Your task to perform on an android device: toggle translation in the chrome app Image 0: 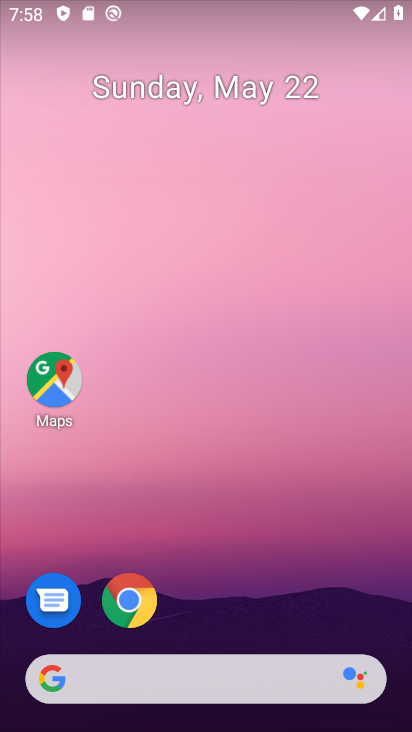
Step 0: drag from (196, 637) to (221, 316)
Your task to perform on an android device: toggle translation in the chrome app Image 1: 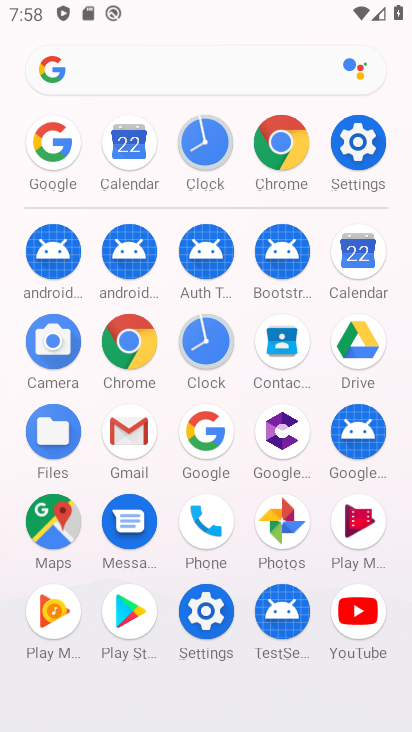
Step 1: click (121, 342)
Your task to perform on an android device: toggle translation in the chrome app Image 2: 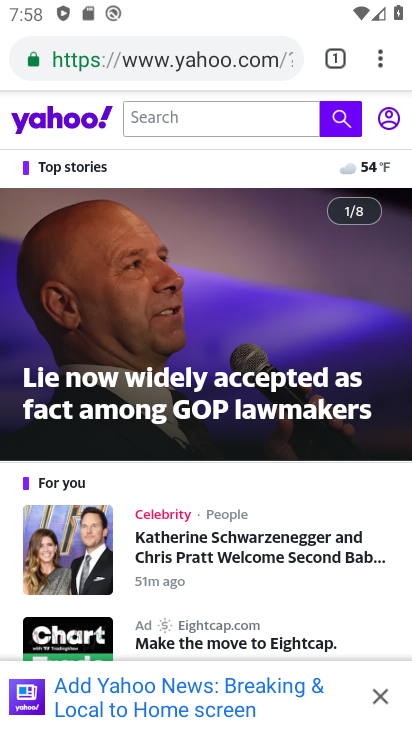
Step 2: click (370, 61)
Your task to perform on an android device: toggle translation in the chrome app Image 3: 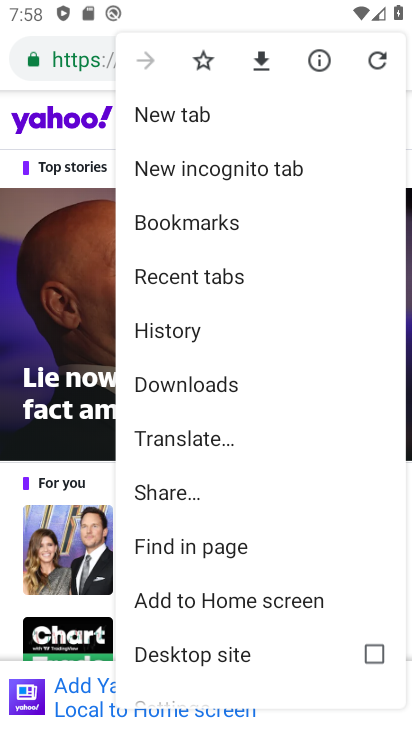
Step 3: drag from (223, 568) to (266, 272)
Your task to perform on an android device: toggle translation in the chrome app Image 4: 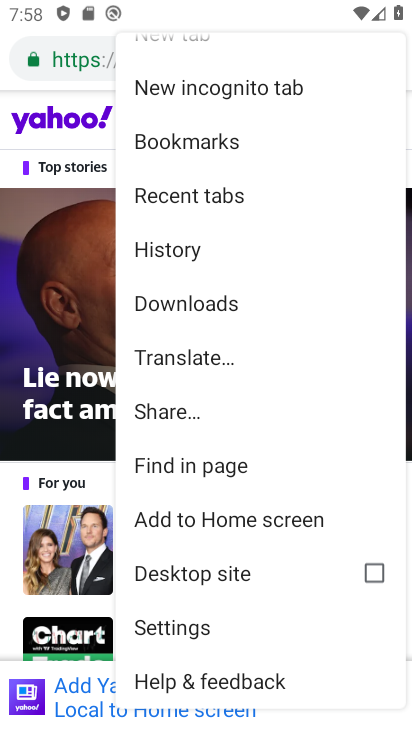
Step 4: click (197, 628)
Your task to perform on an android device: toggle translation in the chrome app Image 5: 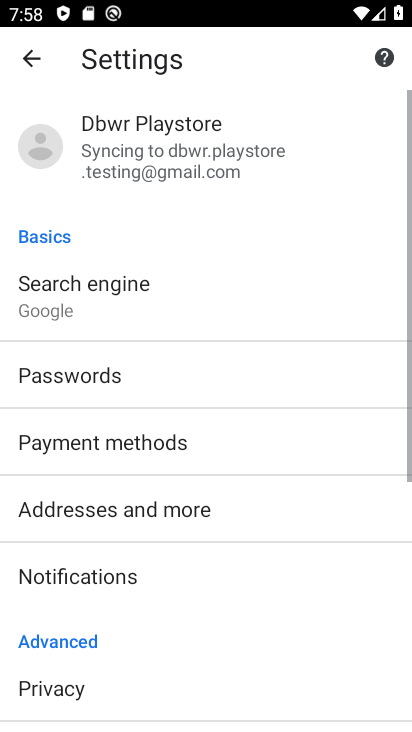
Step 5: drag from (186, 677) to (192, 378)
Your task to perform on an android device: toggle translation in the chrome app Image 6: 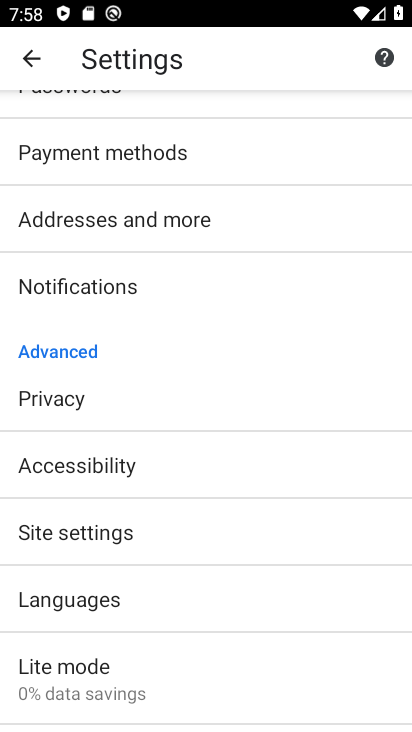
Step 6: click (62, 599)
Your task to perform on an android device: toggle translation in the chrome app Image 7: 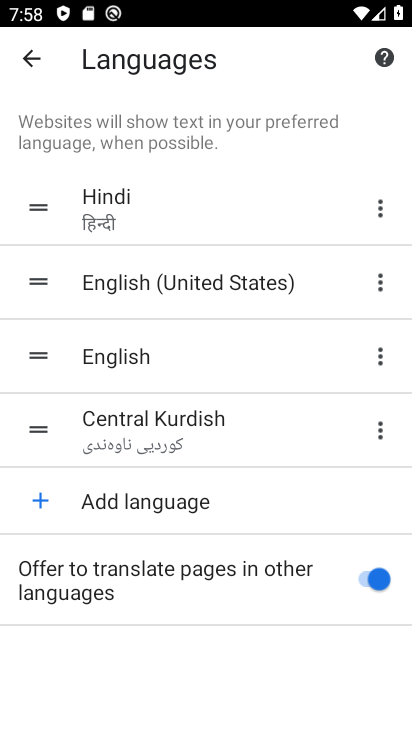
Step 7: click (363, 581)
Your task to perform on an android device: toggle translation in the chrome app Image 8: 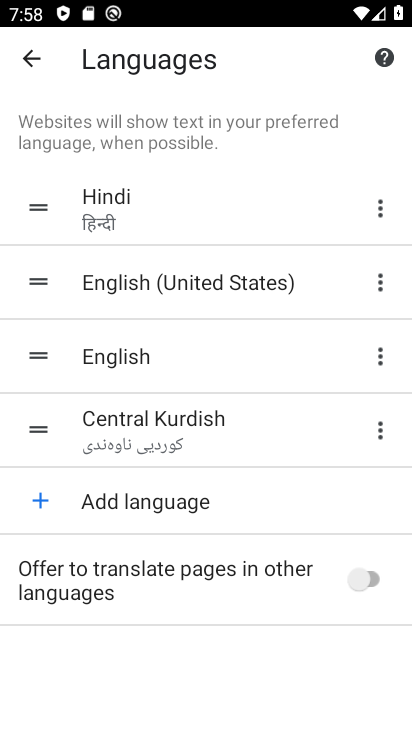
Step 8: task complete